Your task to perform on an android device: turn on airplane mode Image 0: 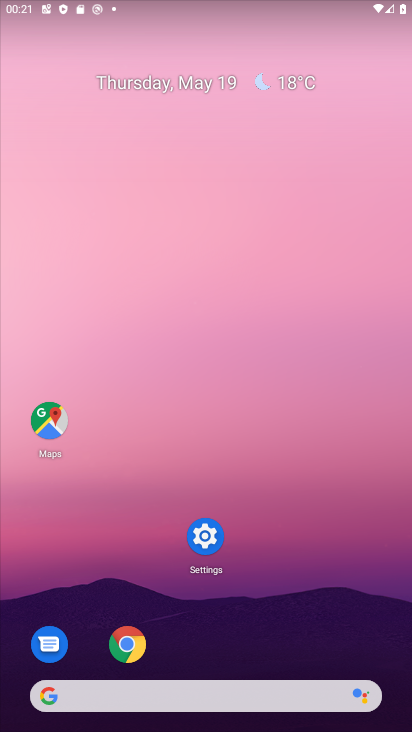
Step 0: drag from (330, 486) to (327, 6)
Your task to perform on an android device: turn on airplane mode Image 1: 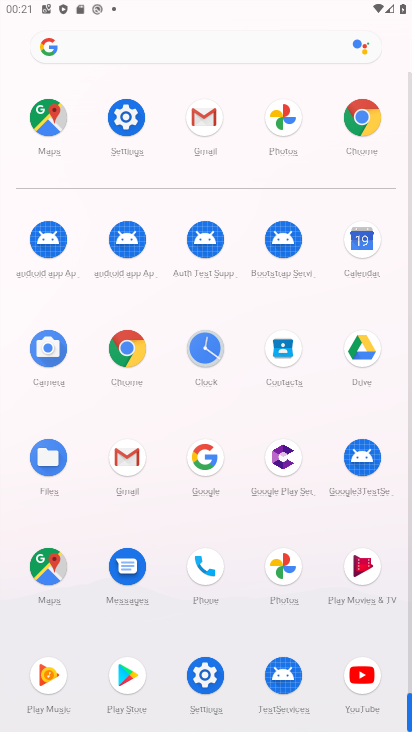
Step 1: click (122, 120)
Your task to perform on an android device: turn on airplane mode Image 2: 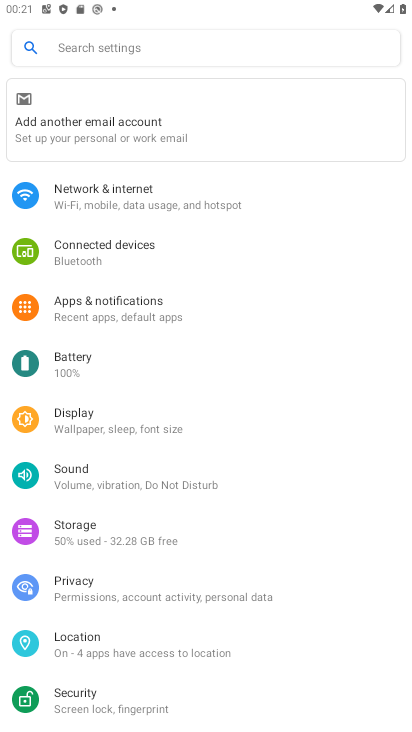
Step 2: drag from (239, 594) to (178, 602)
Your task to perform on an android device: turn on airplane mode Image 3: 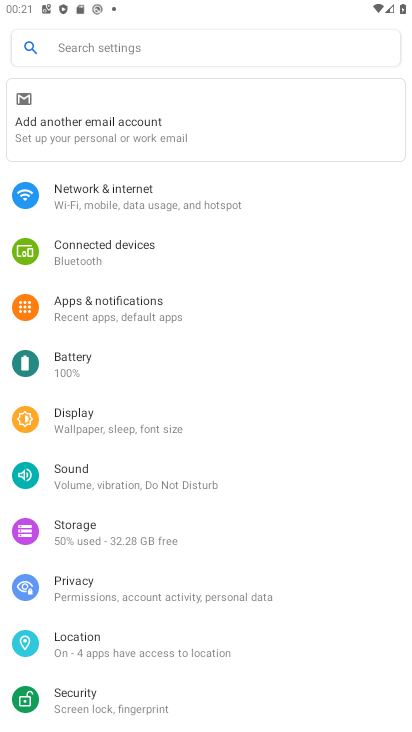
Step 3: click (148, 211)
Your task to perform on an android device: turn on airplane mode Image 4: 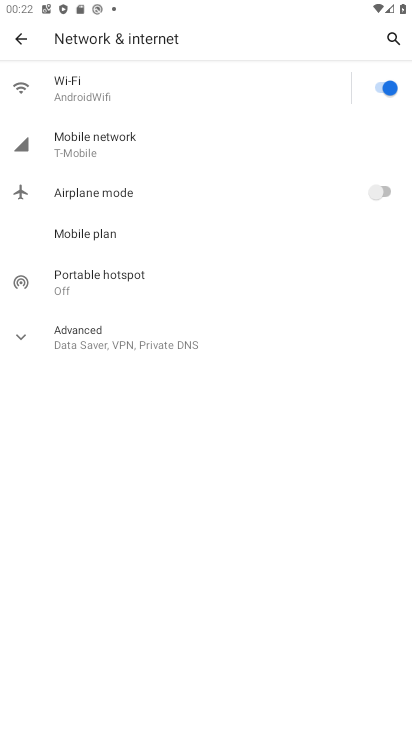
Step 4: click (376, 194)
Your task to perform on an android device: turn on airplane mode Image 5: 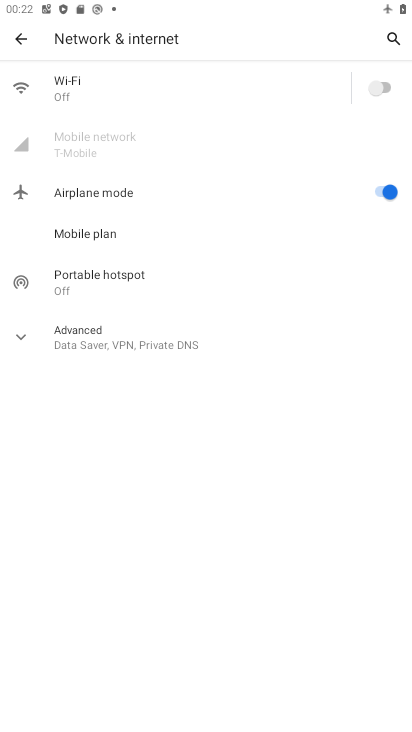
Step 5: task complete